Your task to perform on an android device: Turn off the flashlight Image 0: 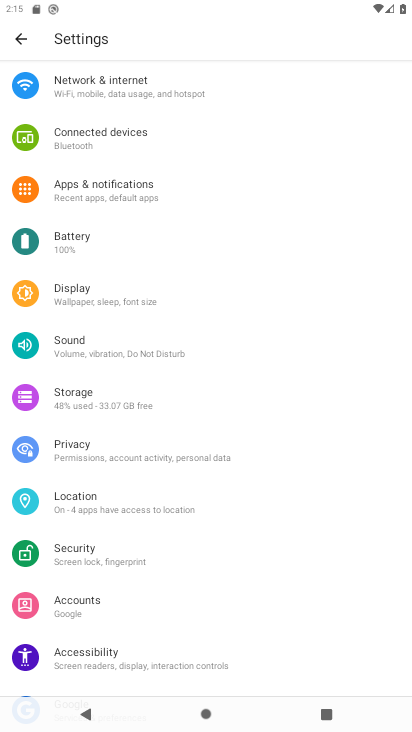
Step 0: press home button
Your task to perform on an android device: Turn off the flashlight Image 1: 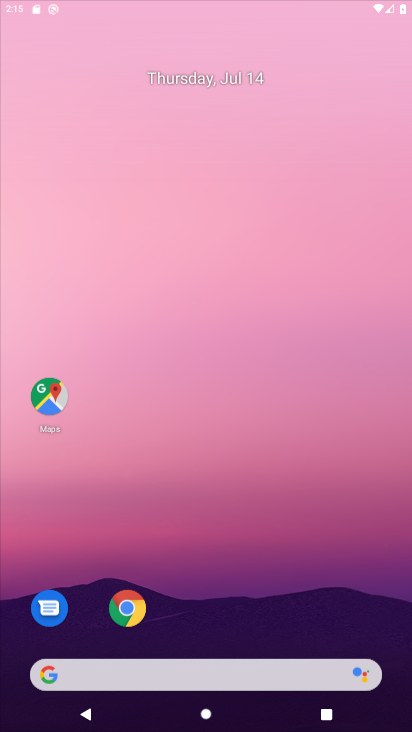
Step 1: task complete